Your task to perform on an android device: Go to sound settings Image 0: 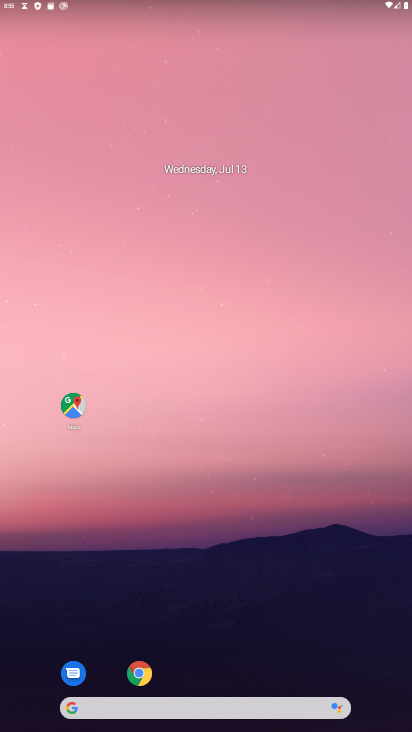
Step 0: drag from (175, 691) to (172, 239)
Your task to perform on an android device: Go to sound settings Image 1: 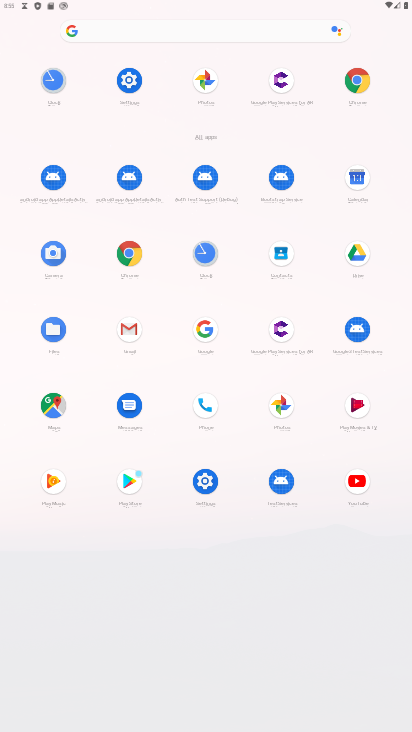
Step 1: click (125, 73)
Your task to perform on an android device: Go to sound settings Image 2: 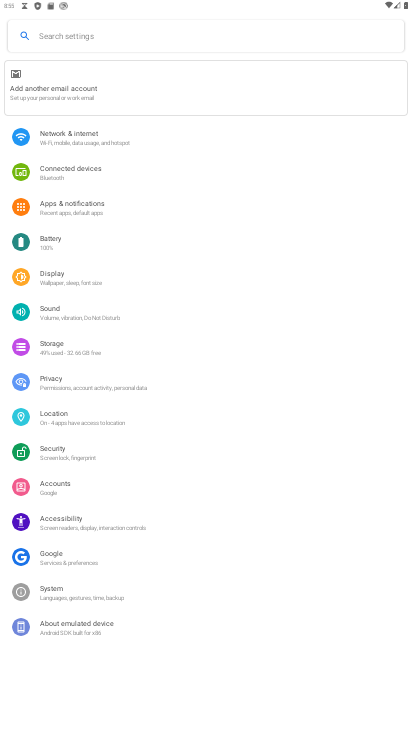
Step 2: click (55, 312)
Your task to perform on an android device: Go to sound settings Image 3: 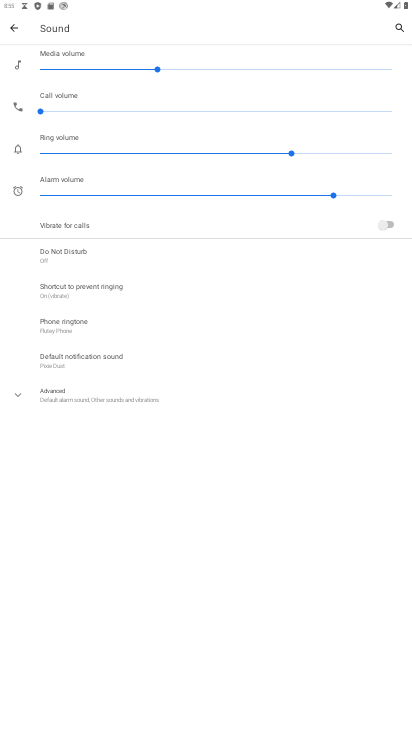
Step 3: click (95, 396)
Your task to perform on an android device: Go to sound settings Image 4: 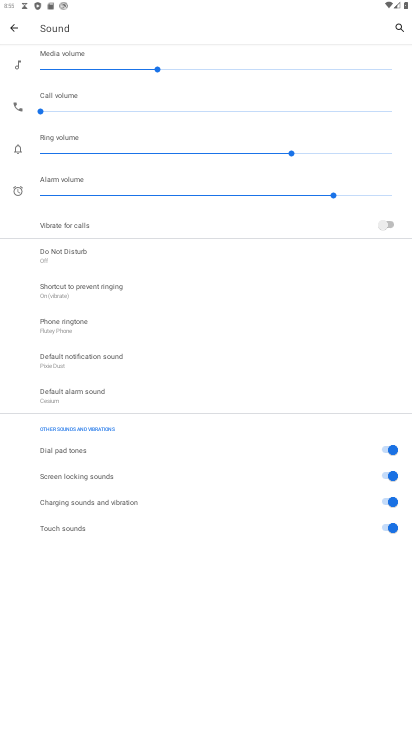
Step 4: task complete